Your task to perform on an android device: set default search engine in the chrome app Image 0: 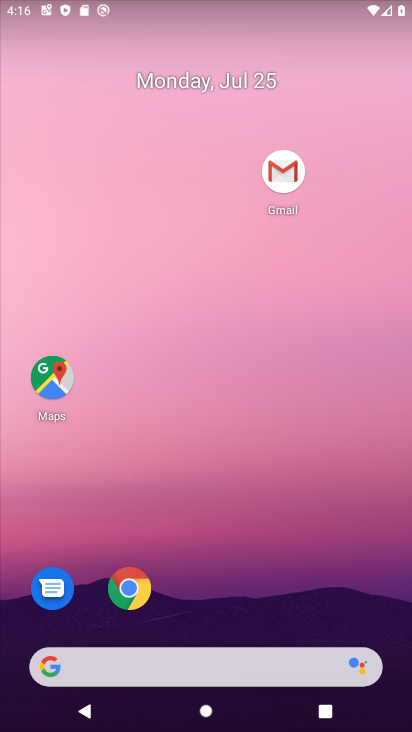
Step 0: drag from (303, 598) to (226, 80)
Your task to perform on an android device: set default search engine in the chrome app Image 1: 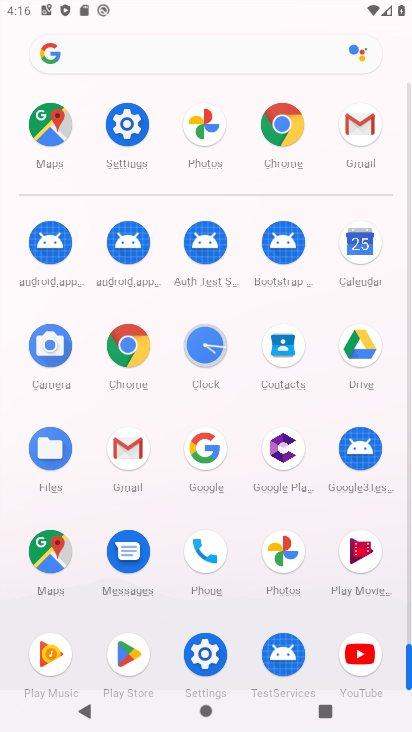
Step 1: click (279, 124)
Your task to perform on an android device: set default search engine in the chrome app Image 2: 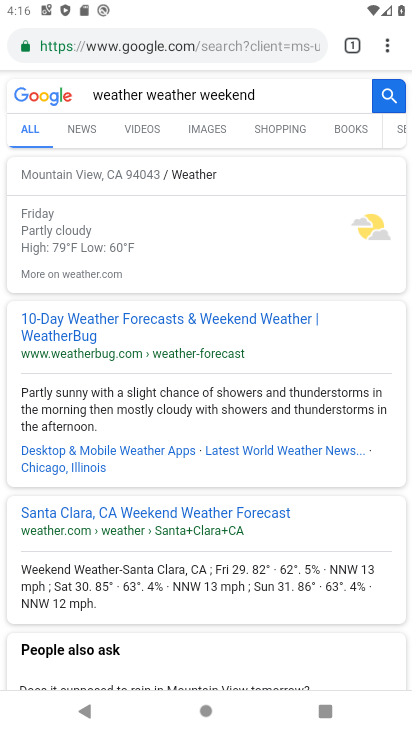
Step 2: drag from (396, 36) to (252, 494)
Your task to perform on an android device: set default search engine in the chrome app Image 3: 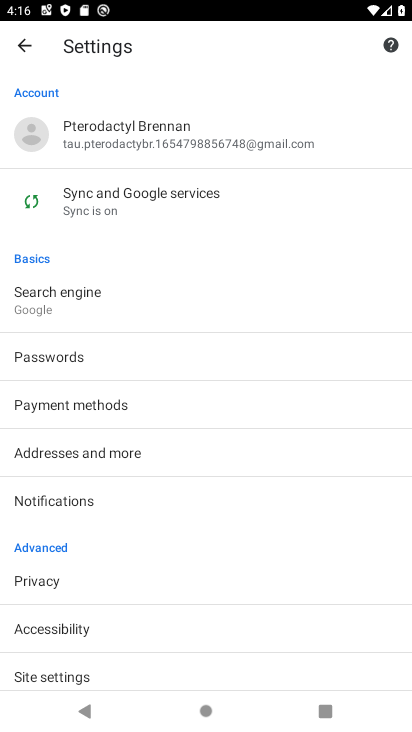
Step 3: click (93, 297)
Your task to perform on an android device: set default search engine in the chrome app Image 4: 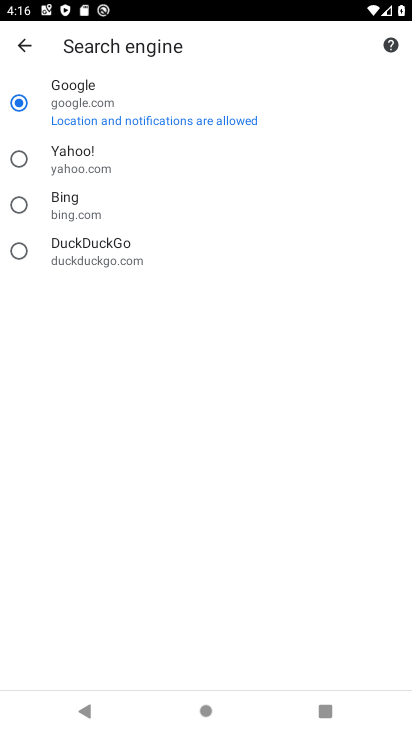
Step 4: task complete